Your task to perform on an android device: turn on improve location accuracy Image 0: 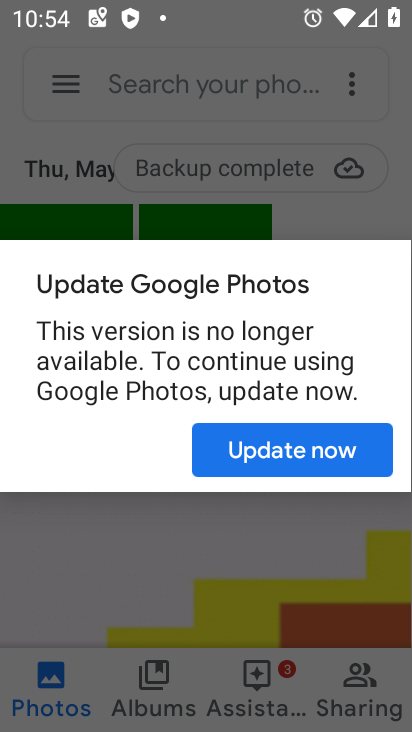
Step 0: press home button
Your task to perform on an android device: turn on improve location accuracy Image 1: 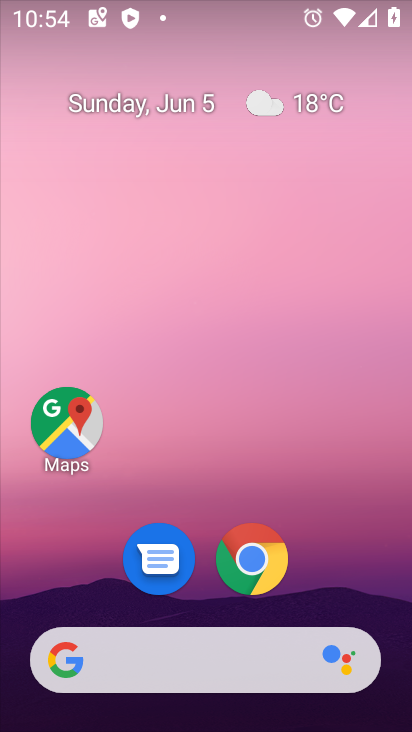
Step 1: drag from (392, 652) to (330, 68)
Your task to perform on an android device: turn on improve location accuracy Image 2: 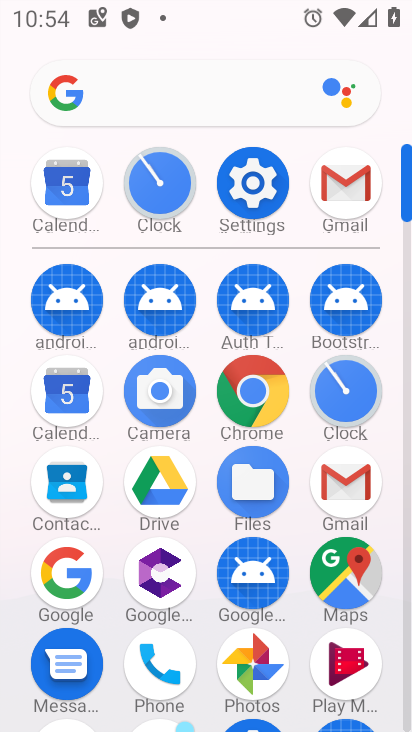
Step 2: click (248, 185)
Your task to perform on an android device: turn on improve location accuracy Image 3: 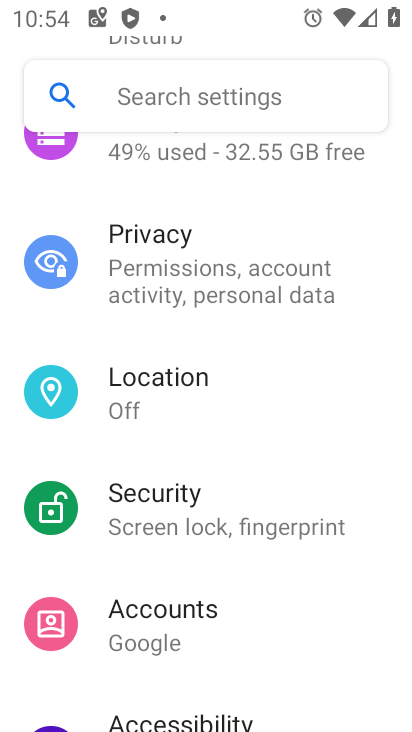
Step 3: click (175, 383)
Your task to perform on an android device: turn on improve location accuracy Image 4: 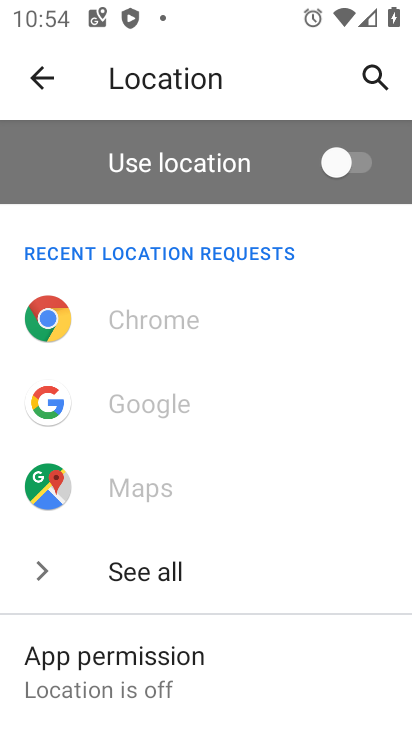
Step 4: click (362, 153)
Your task to perform on an android device: turn on improve location accuracy Image 5: 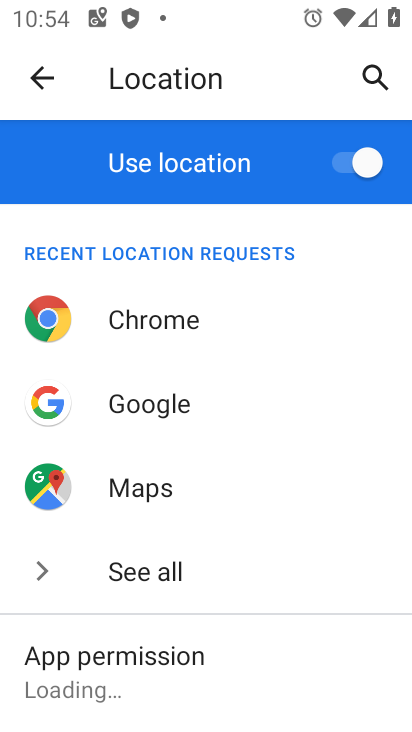
Step 5: click (332, 161)
Your task to perform on an android device: turn on improve location accuracy Image 6: 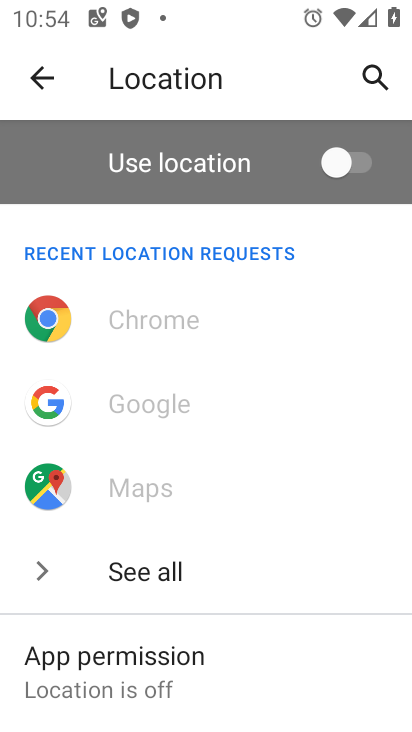
Step 6: drag from (241, 562) to (223, 163)
Your task to perform on an android device: turn on improve location accuracy Image 7: 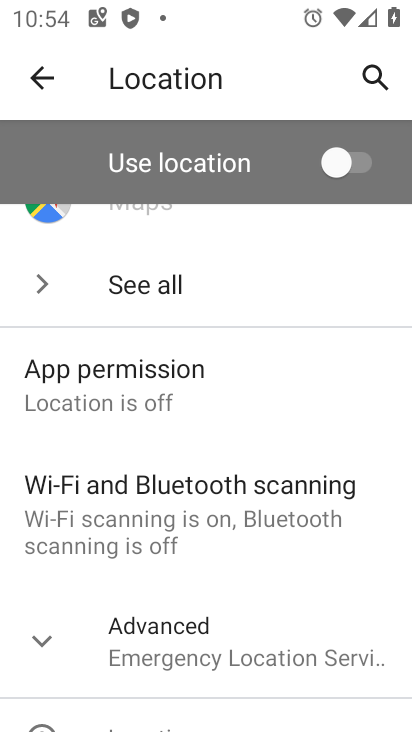
Step 7: click (167, 609)
Your task to perform on an android device: turn on improve location accuracy Image 8: 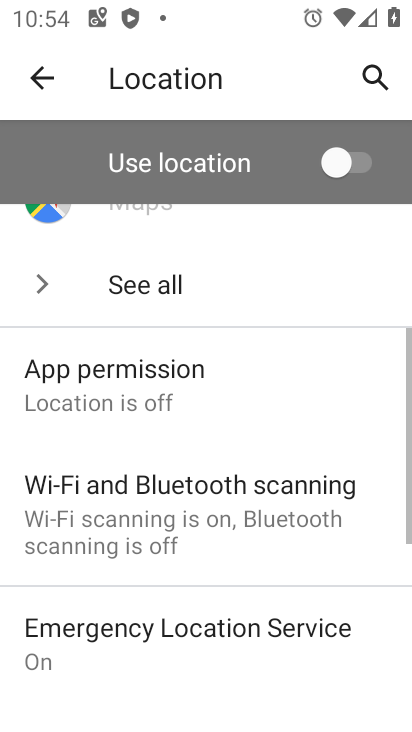
Step 8: drag from (153, 624) to (157, 307)
Your task to perform on an android device: turn on improve location accuracy Image 9: 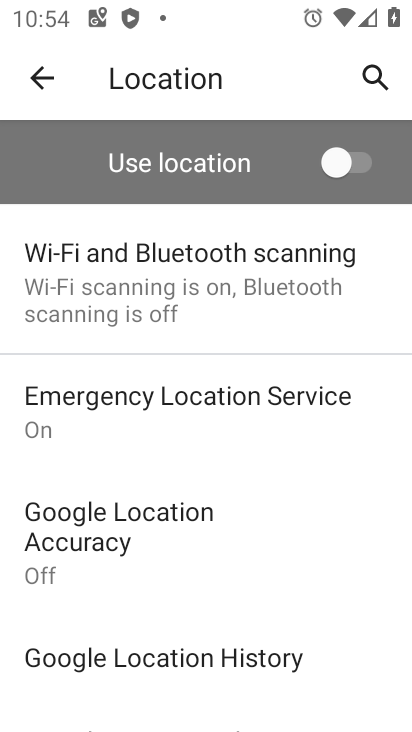
Step 9: click (133, 521)
Your task to perform on an android device: turn on improve location accuracy Image 10: 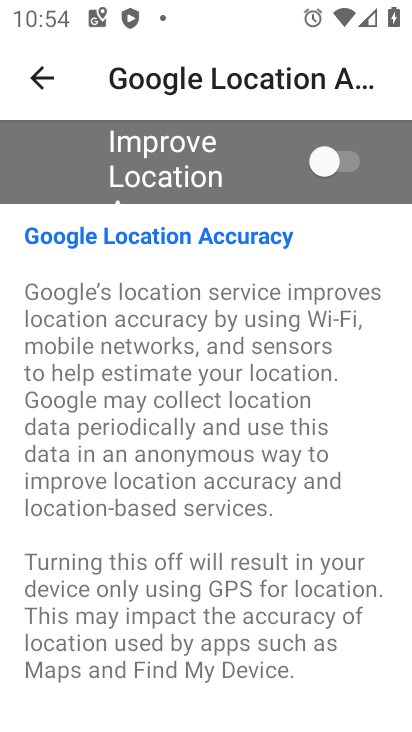
Step 10: click (339, 169)
Your task to perform on an android device: turn on improve location accuracy Image 11: 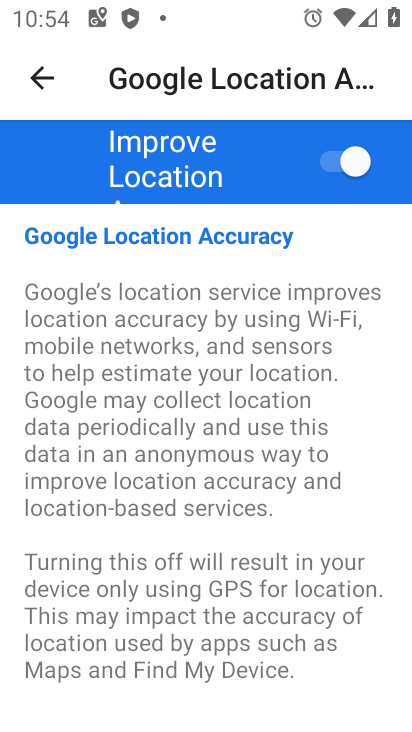
Step 11: task complete